Your task to perform on an android device: Go to Yahoo.com Image 0: 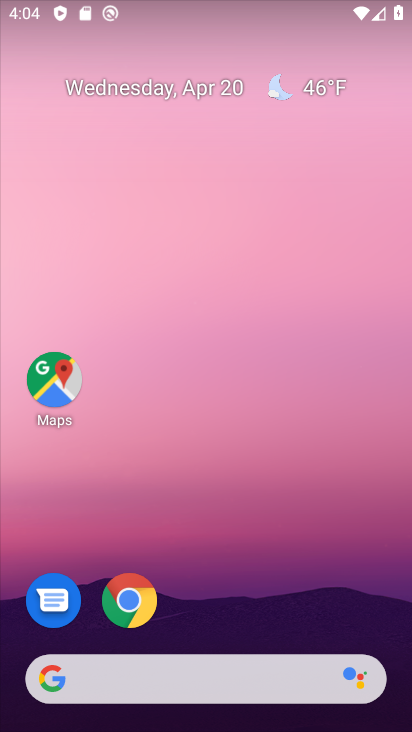
Step 0: click (130, 593)
Your task to perform on an android device: Go to Yahoo.com Image 1: 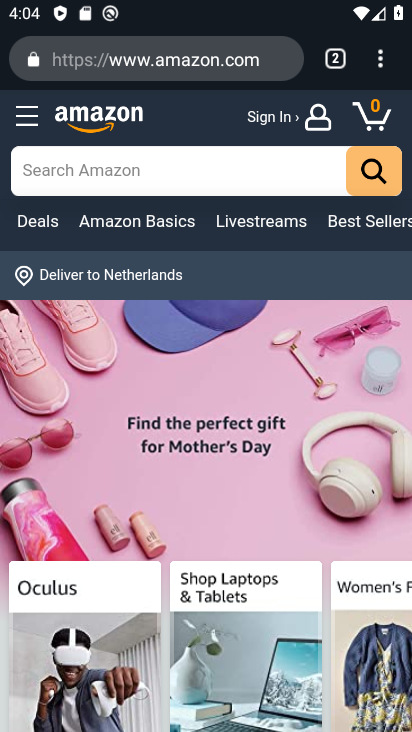
Step 1: click (333, 57)
Your task to perform on an android device: Go to Yahoo.com Image 2: 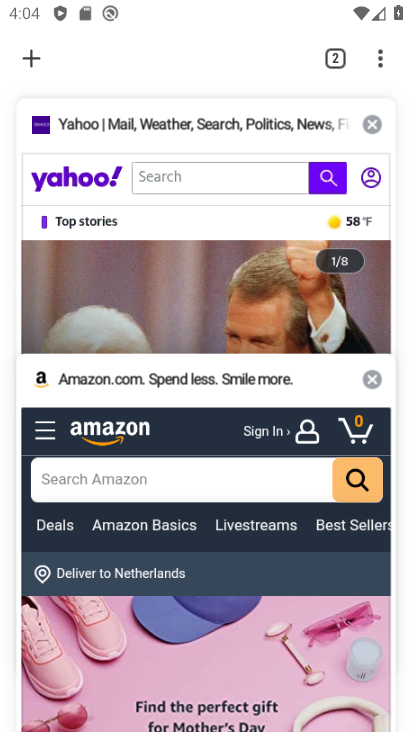
Step 2: click (29, 55)
Your task to perform on an android device: Go to Yahoo.com Image 3: 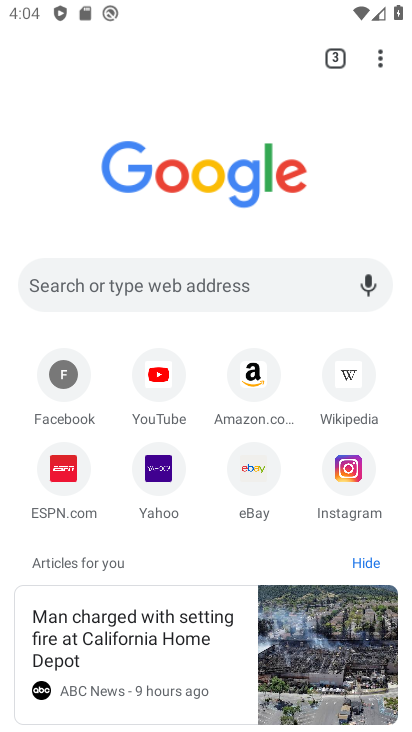
Step 3: click (160, 470)
Your task to perform on an android device: Go to Yahoo.com Image 4: 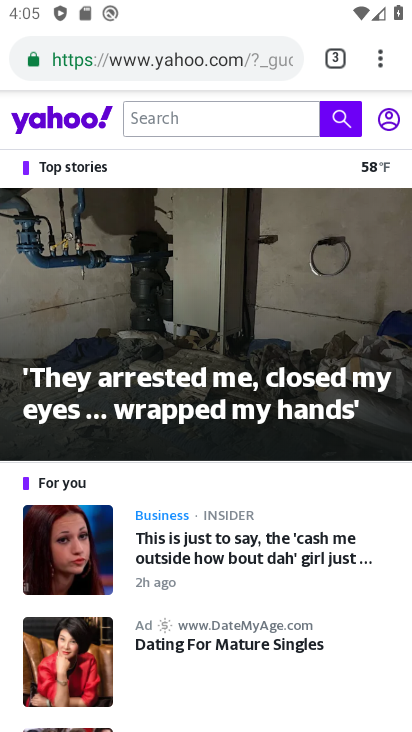
Step 4: task complete